Your task to perform on an android device: uninstall "Google Chrome" Image 0: 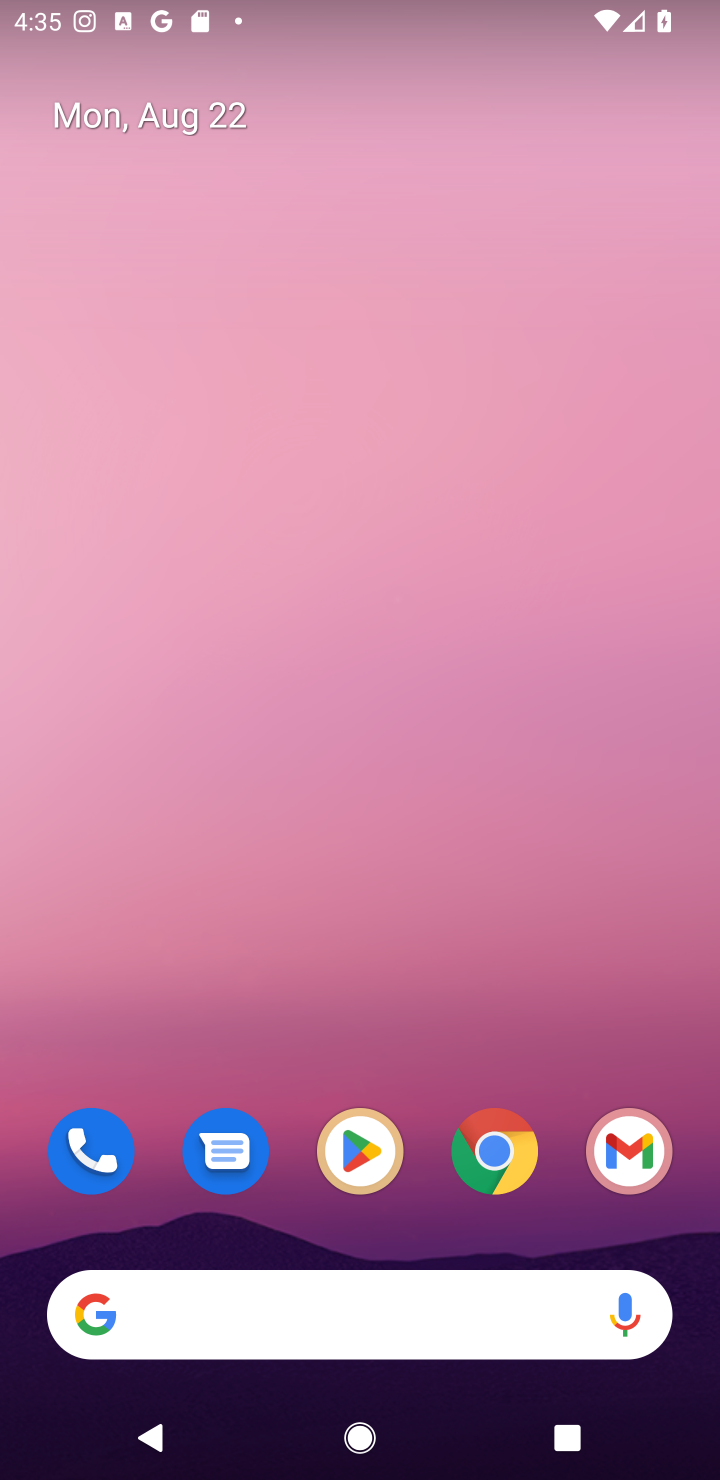
Step 0: click (342, 1151)
Your task to perform on an android device: uninstall "Google Chrome" Image 1: 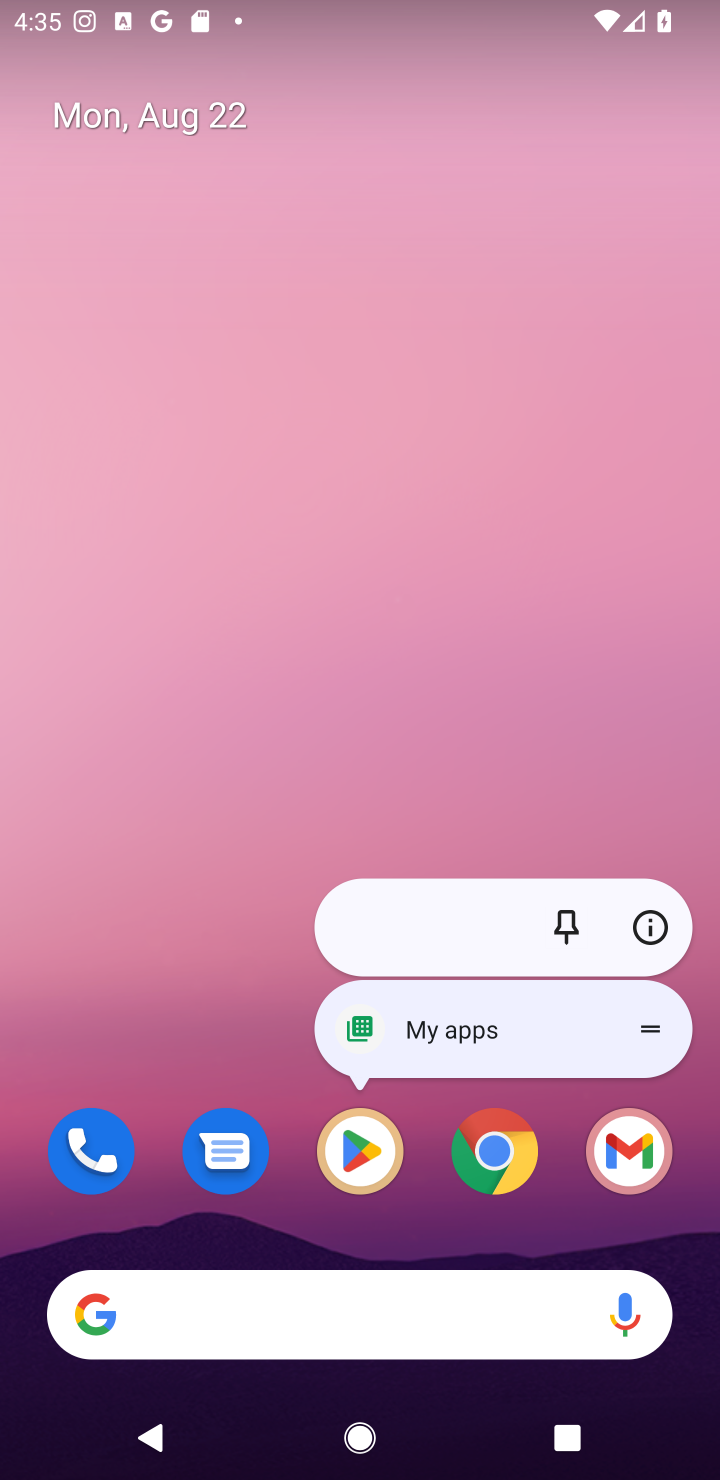
Step 1: click (342, 1149)
Your task to perform on an android device: uninstall "Google Chrome" Image 2: 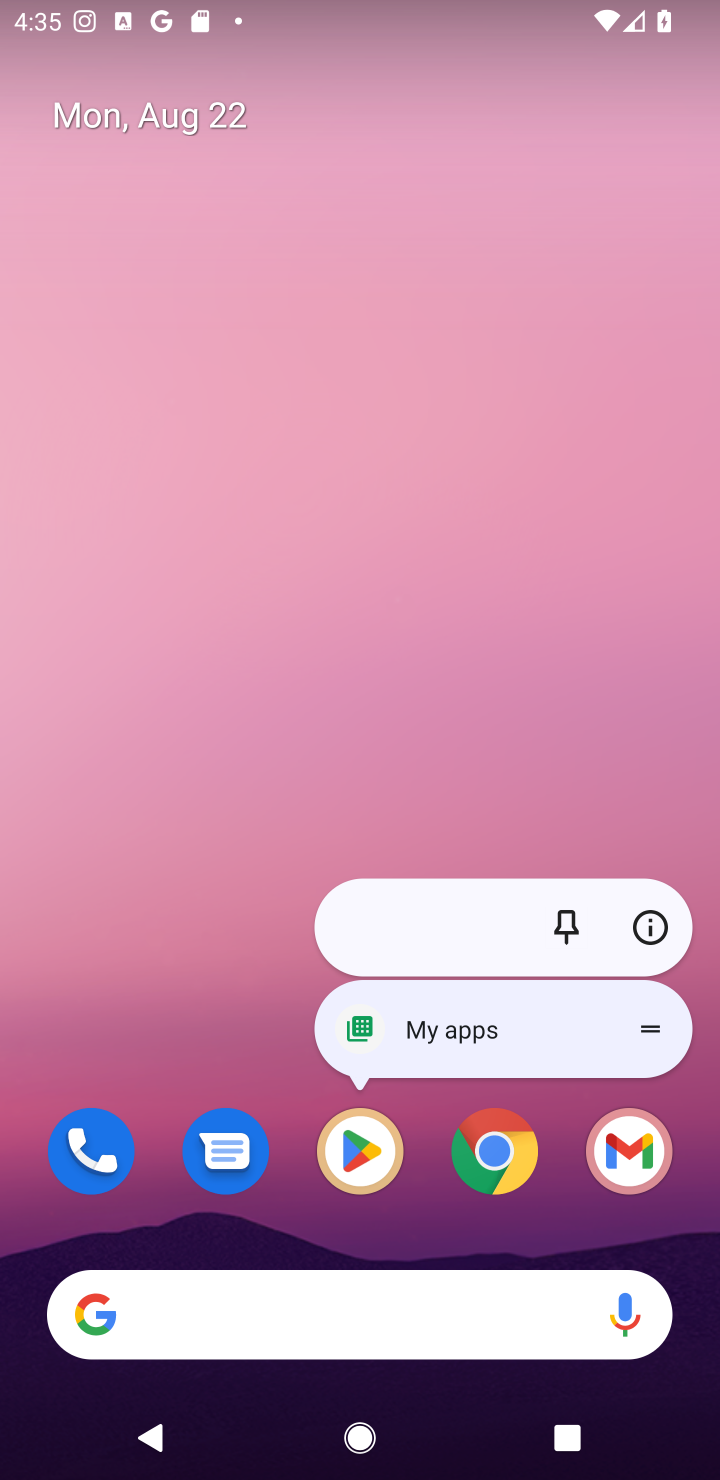
Step 2: click (351, 1145)
Your task to perform on an android device: uninstall "Google Chrome" Image 3: 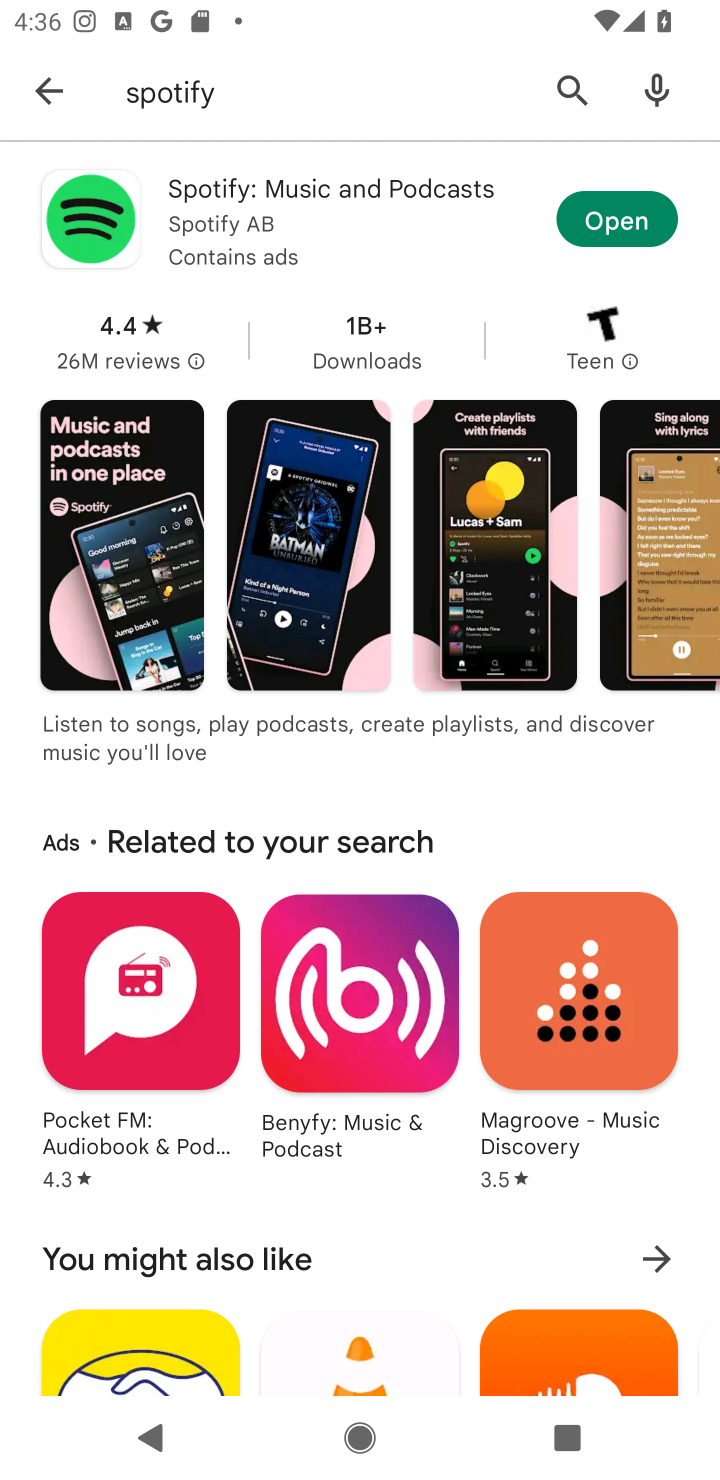
Step 3: click (568, 80)
Your task to perform on an android device: uninstall "Google Chrome" Image 4: 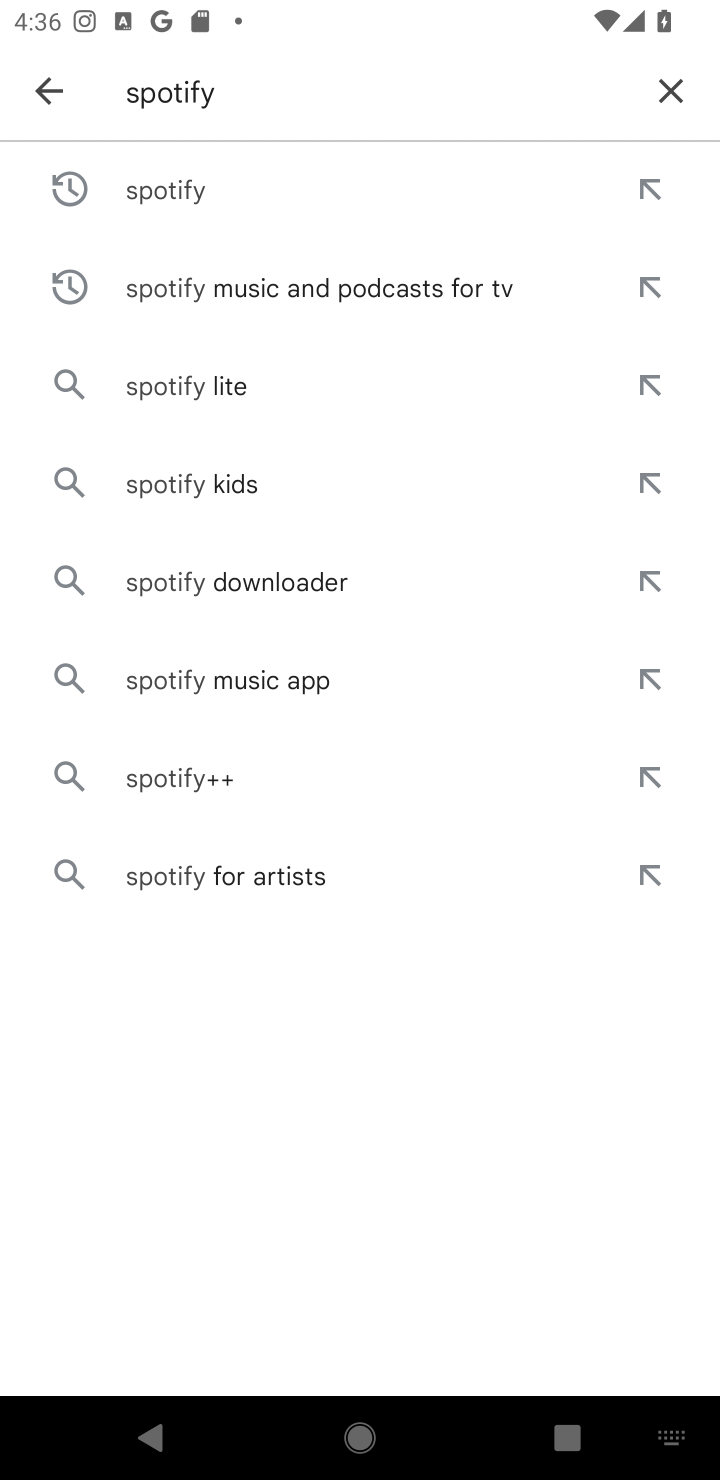
Step 4: click (654, 83)
Your task to perform on an android device: uninstall "Google Chrome" Image 5: 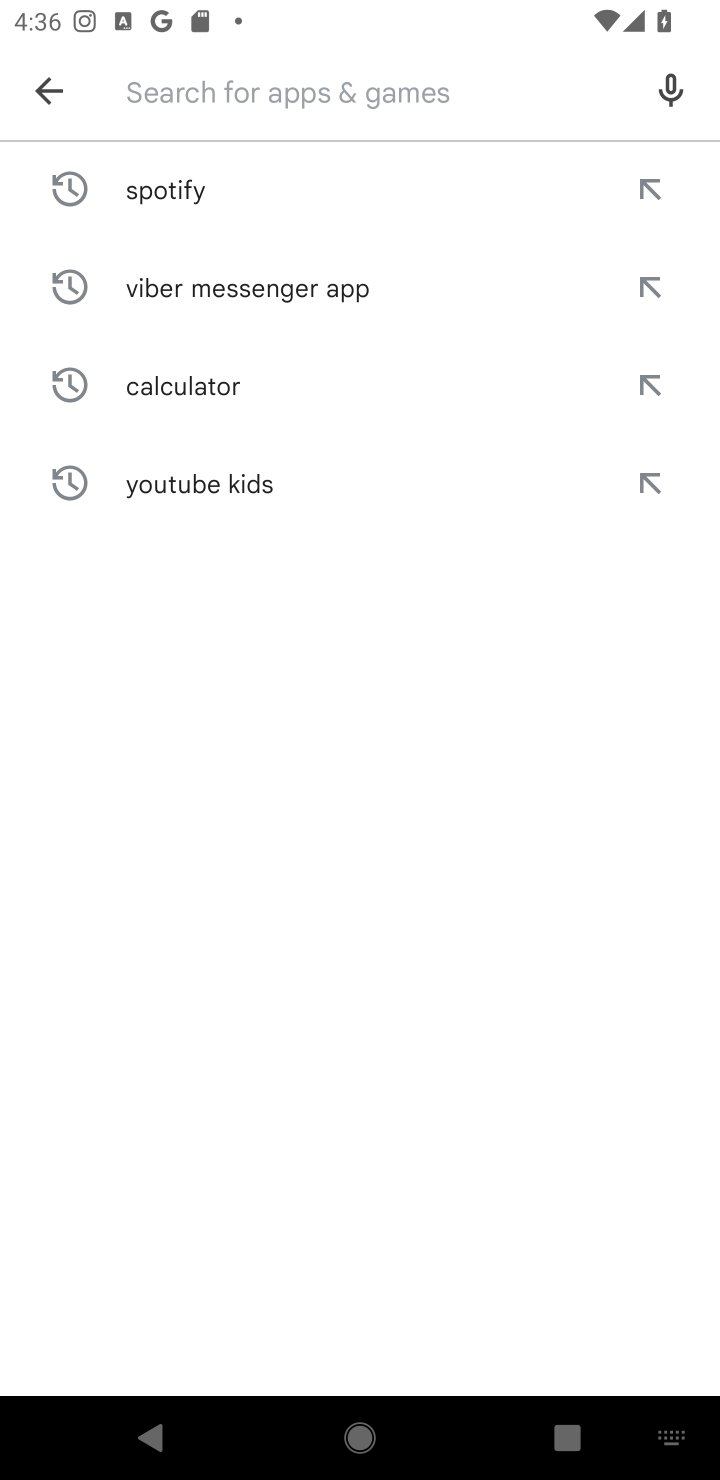
Step 5: type "Google Chrome"
Your task to perform on an android device: uninstall "Google Chrome" Image 6: 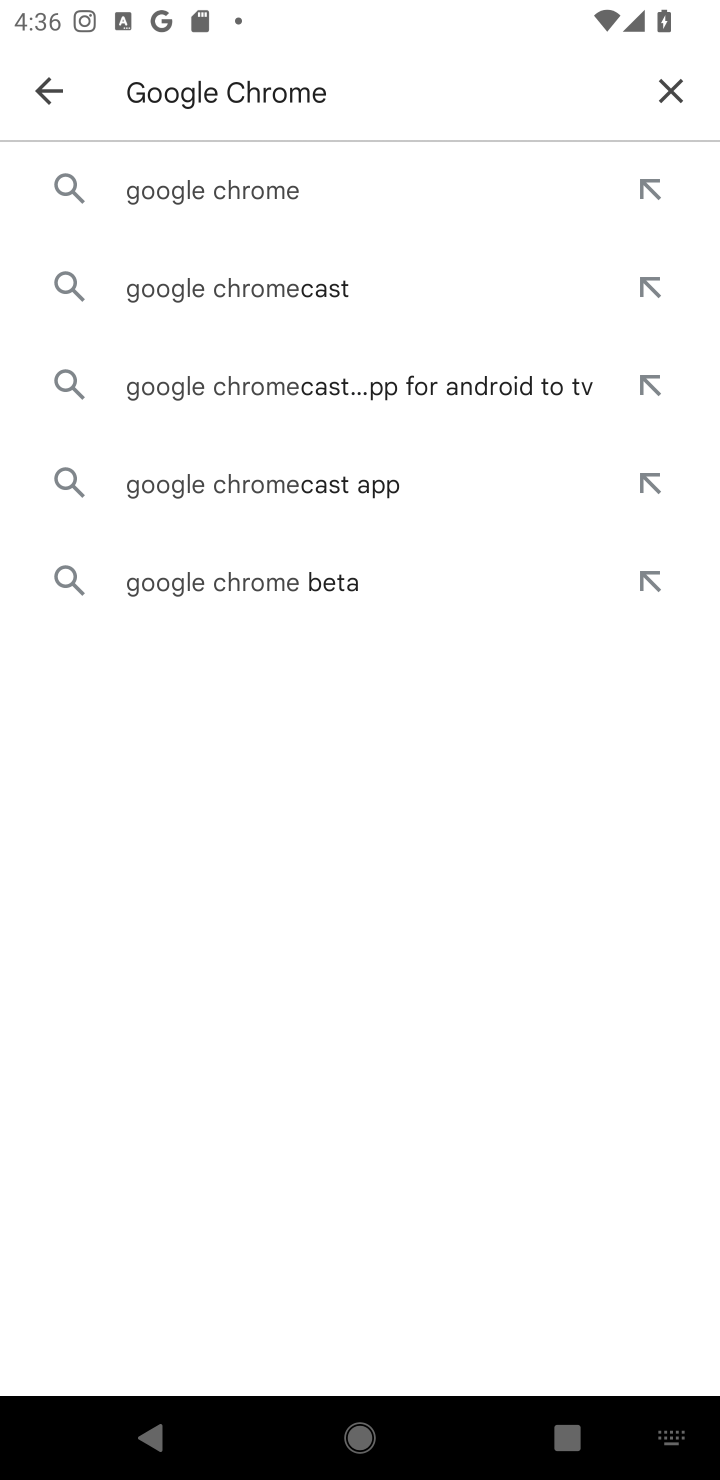
Step 6: click (146, 176)
Your task to perform on an android device: uninstall "Google Chrome" Image 7: 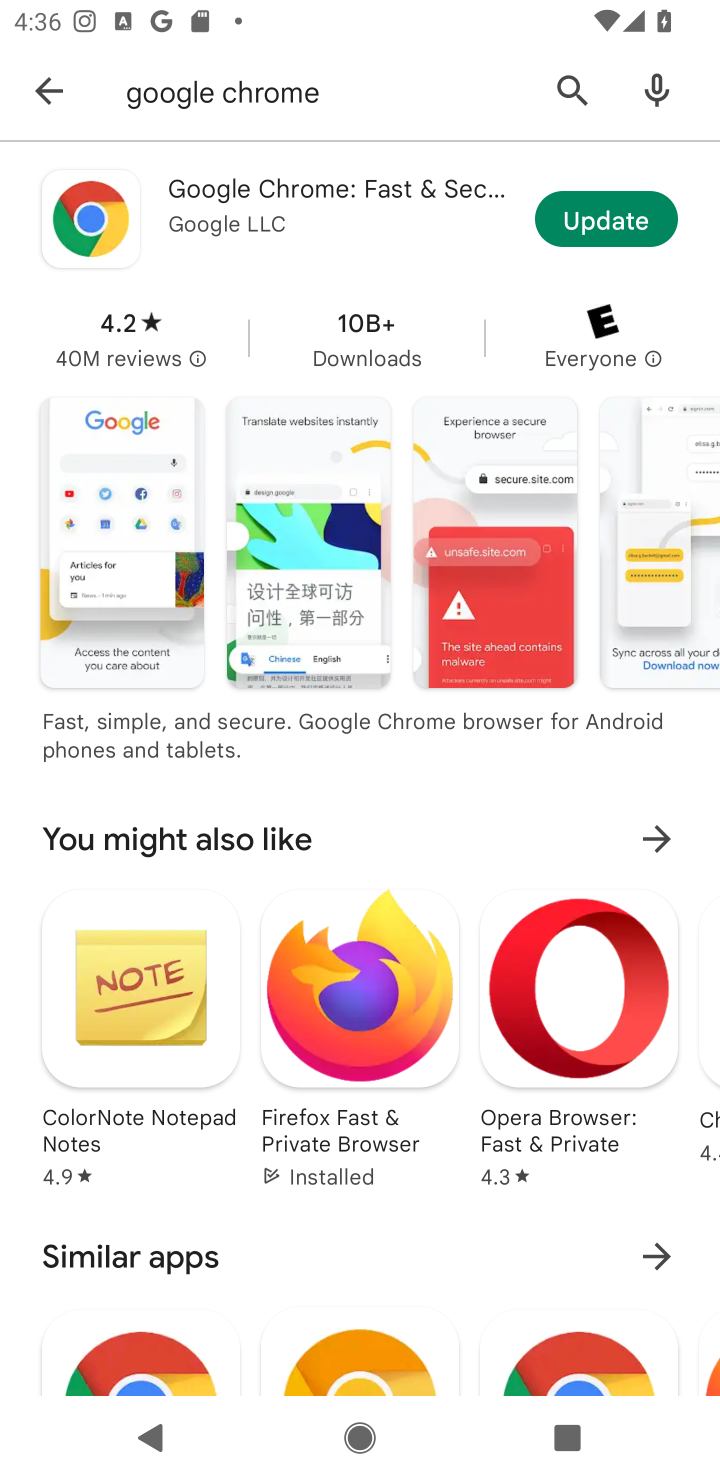
Step 7: click (196, 207)
Your task to perform on an android device: uninstall "Google Chrome" Image 8: 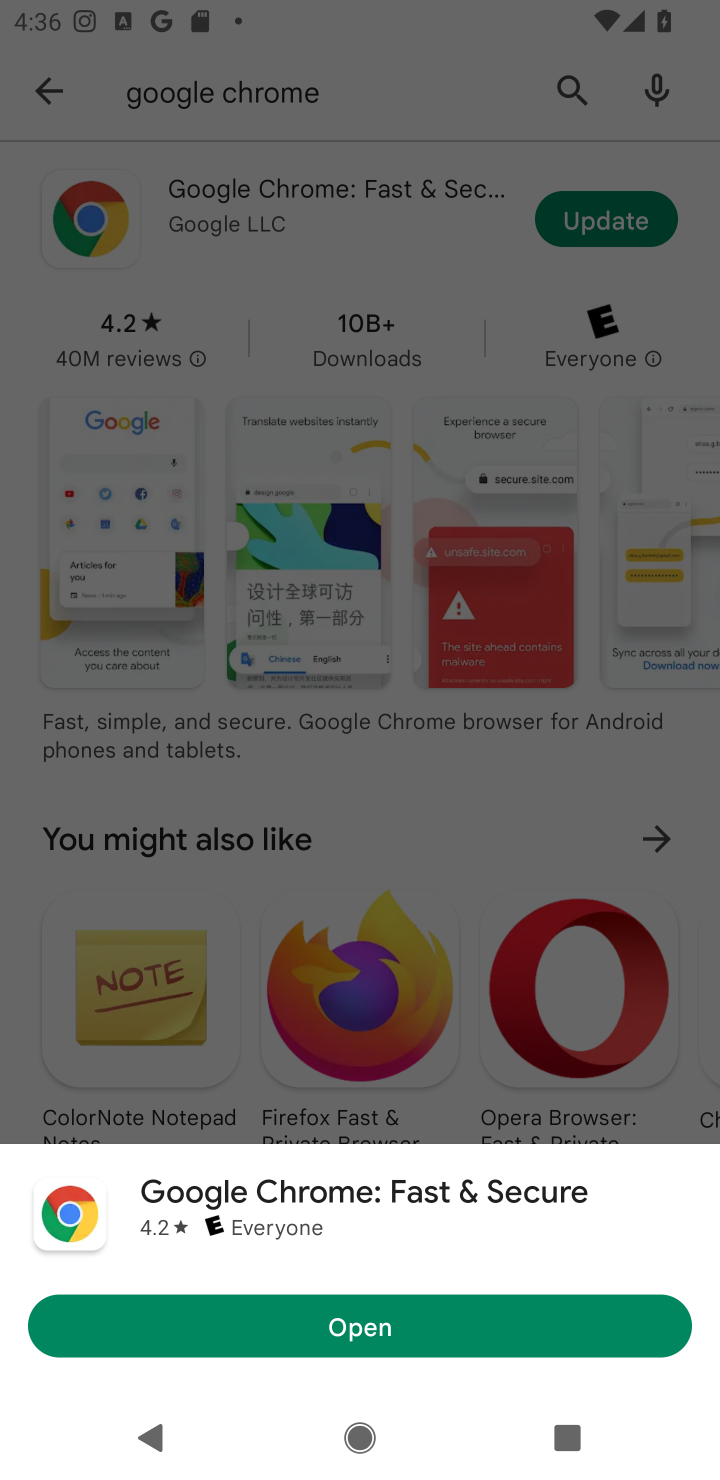
Step 8: click (126, 224)
Your task to perform on an android device: uninstall "Google Chrome" Image 9: 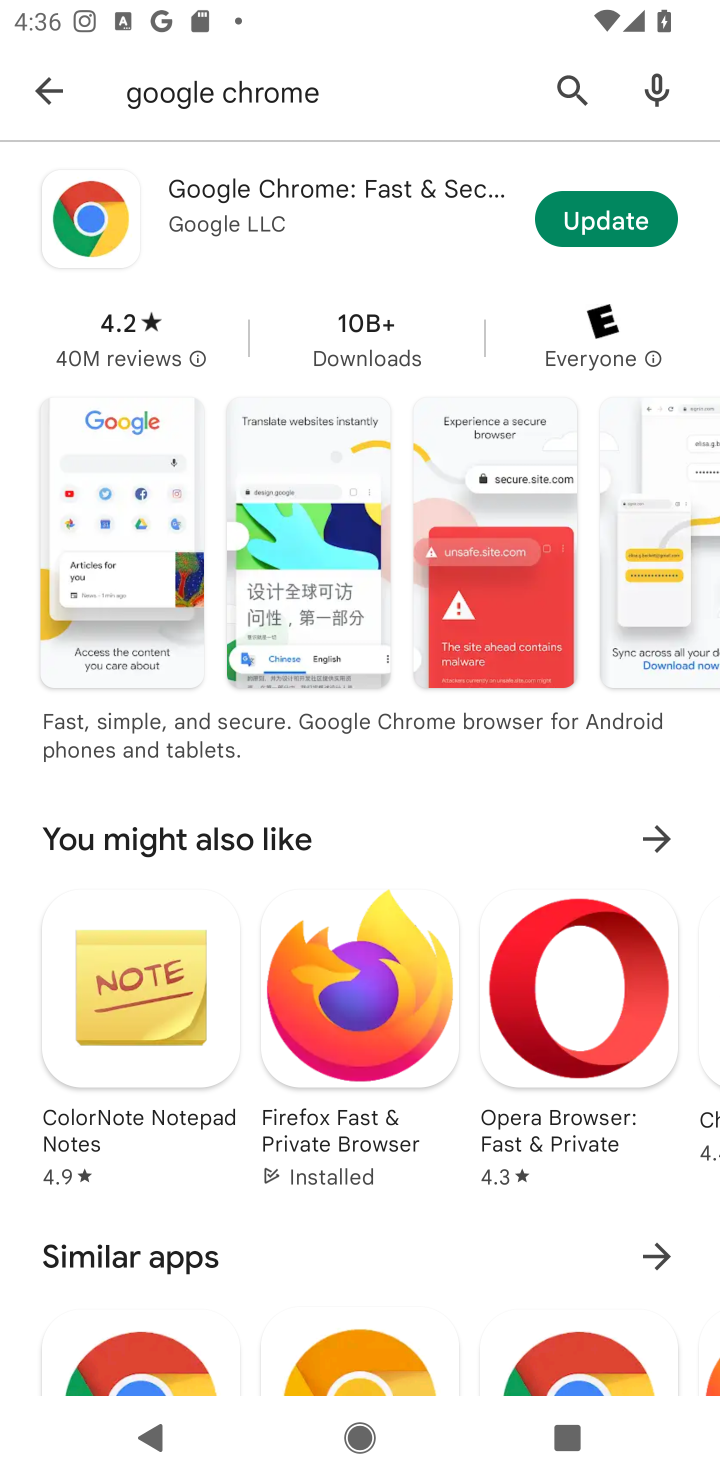
Step 9: click (185, 192)
Your task to perform on an android device: uninstall "Google Chrome" Image 10: 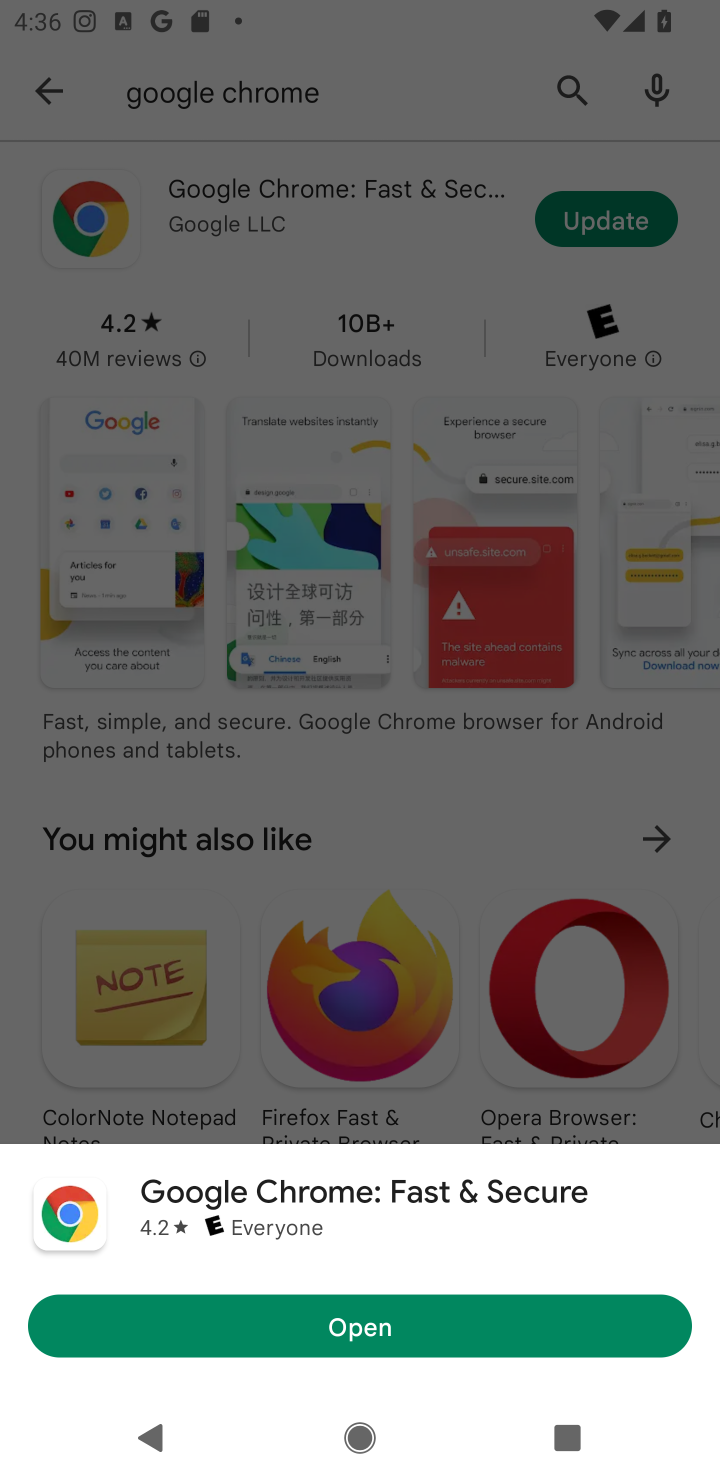
Step 10: click (233, 213)
Your task to perform on an android device: uninstall "Google Chrome" Image 11: 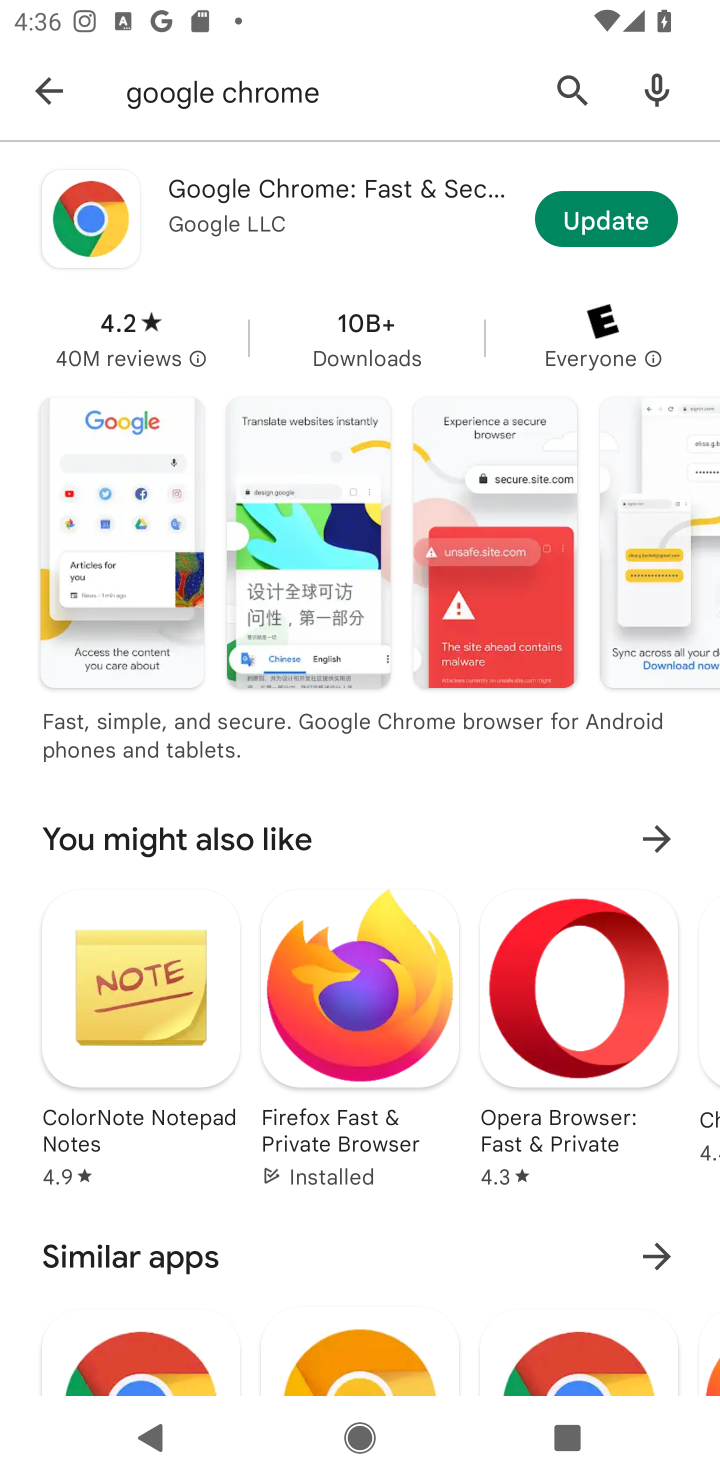
Step 11: click (233, 171)
Your task to perform on an android device: uninstall "Google Chrome" Image 12: 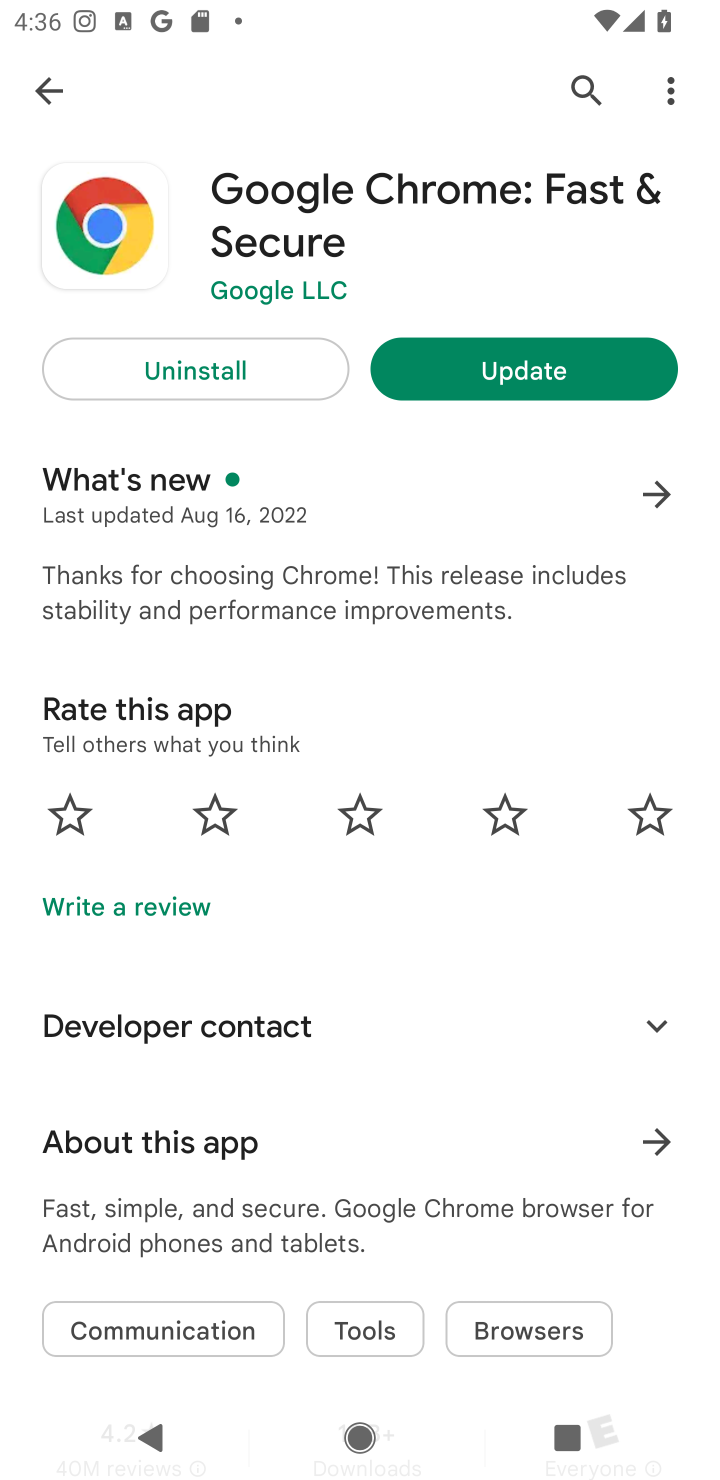
Step 12: click (295, 365)
Your task to perform on an android device: uninstall "Google Chrome" Image 13: 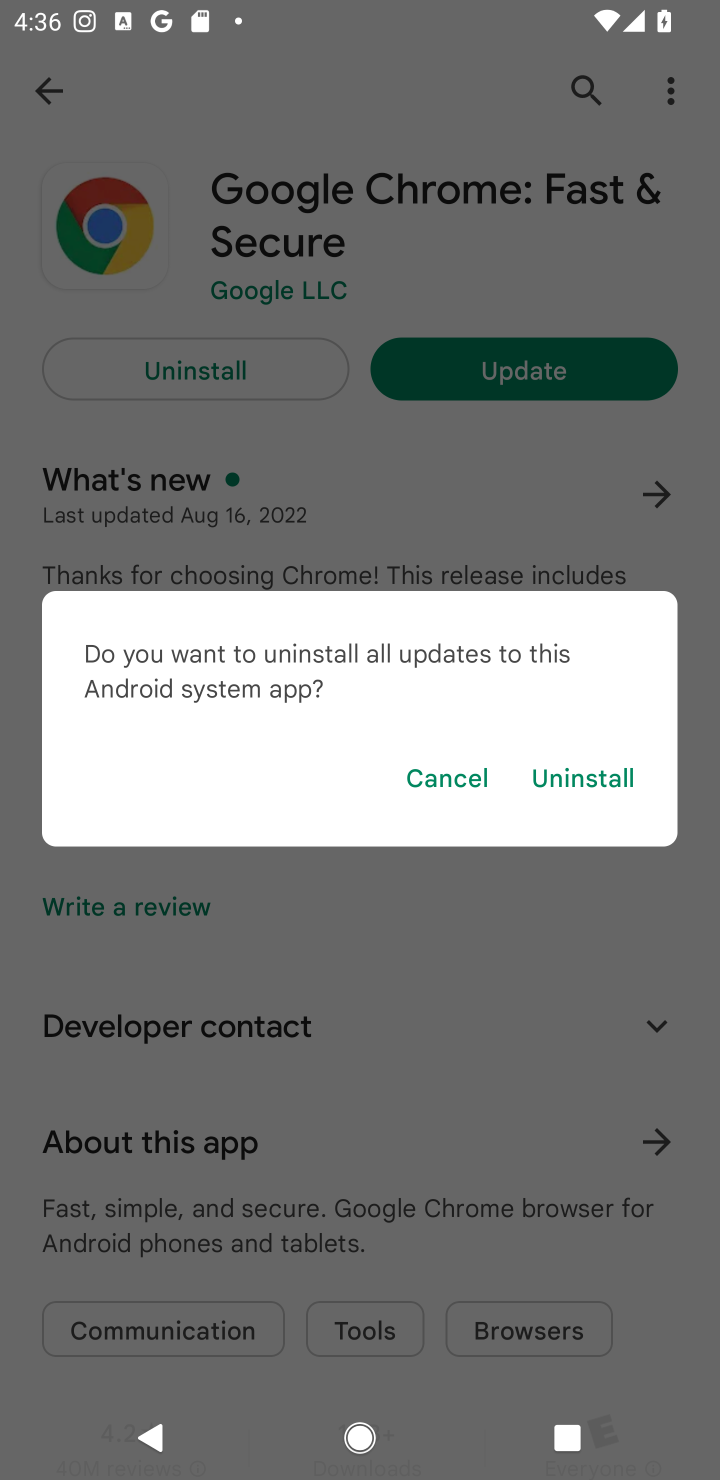
Step 13: click (609, 772)
Your task to perform on an android device: uninstall "Google Chrome" Image 14: 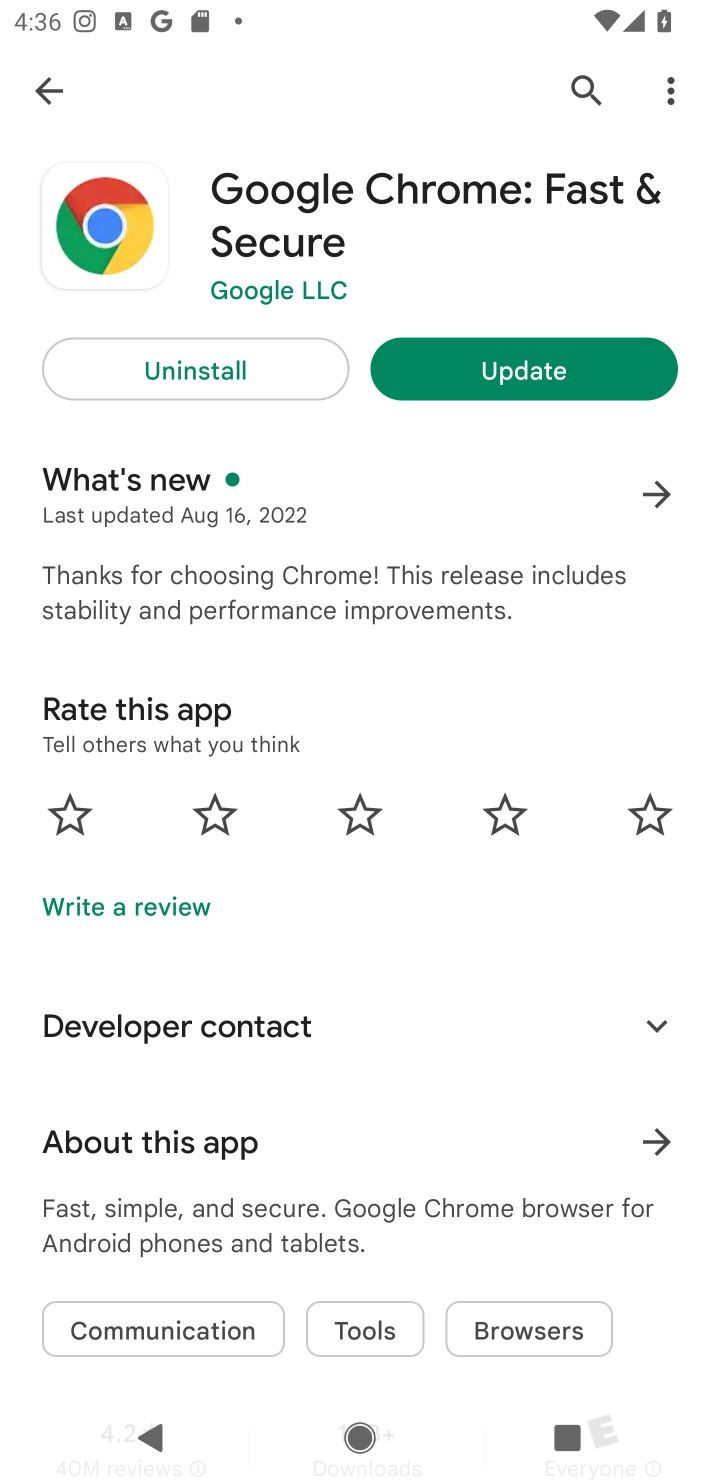
Step 14: task complete